Your task to perform on an android device: turn pop-ups off in chrome Image 0: 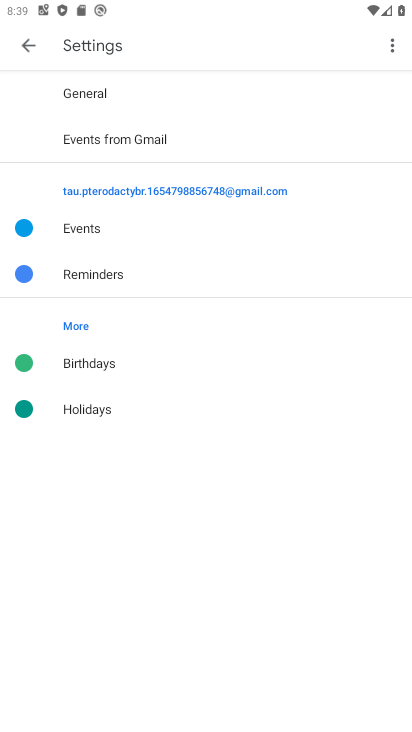
Step 0: press home button
Your task to perform on an android device: turn pop-ups off in chrome Image 1: 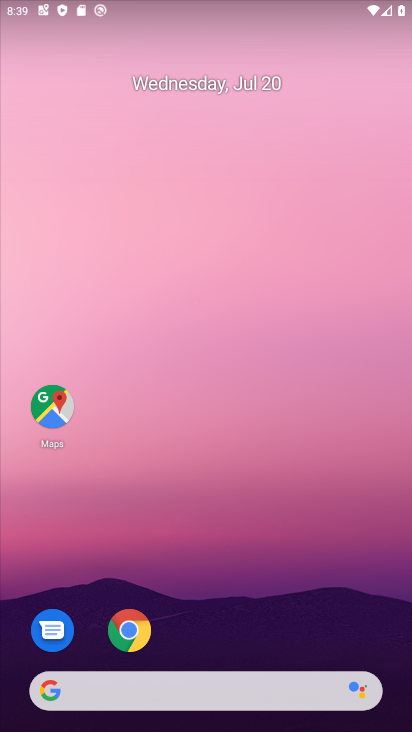
Step 1: drag from (387, 675) to (334, 137)
Your task to perform on an android device: turn pop-ups off in chrome Image 2: 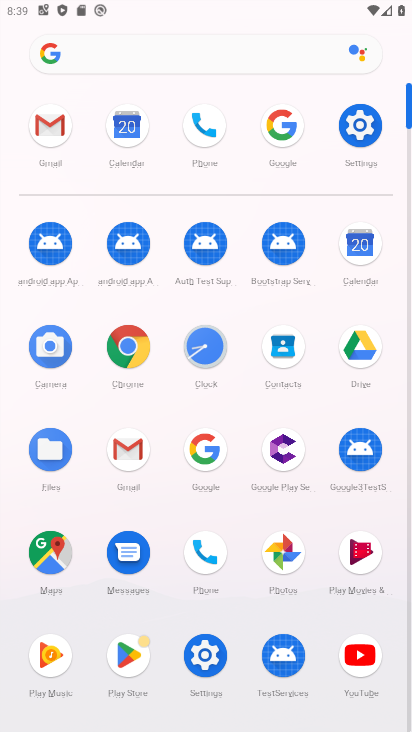
Step 2: click (129, 352)
Your task to perform on an android device: turn pop-ups off in chrome Image 3: 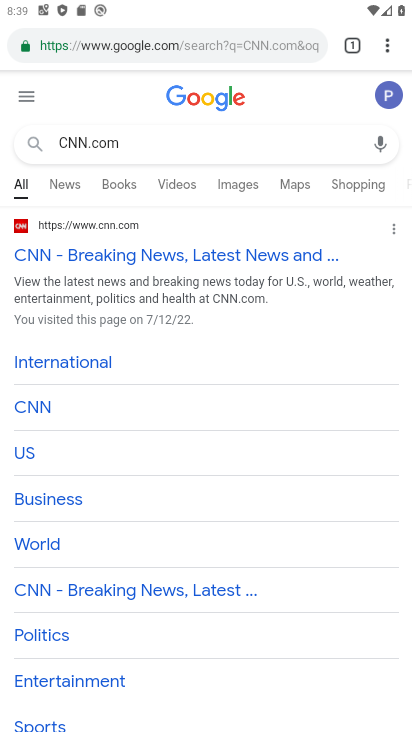
Step 3: click (381, 42)
Your task to perform on an android device: turn pop-ups off in chrome Image 4: 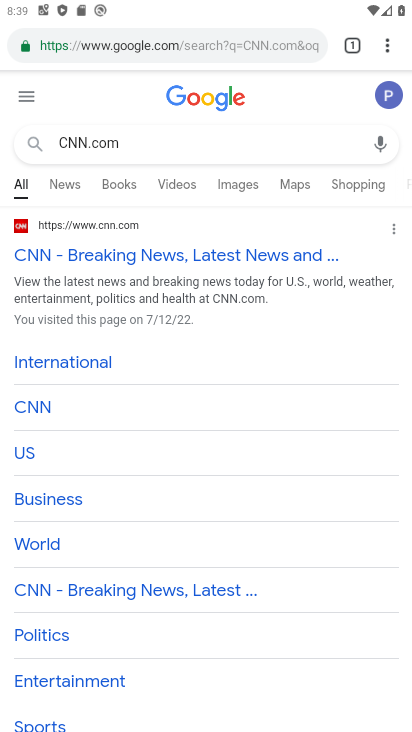
Step 4: click (389, 48)
Your task to perform on an android device: turn pop-ups off in chrome Image 5: 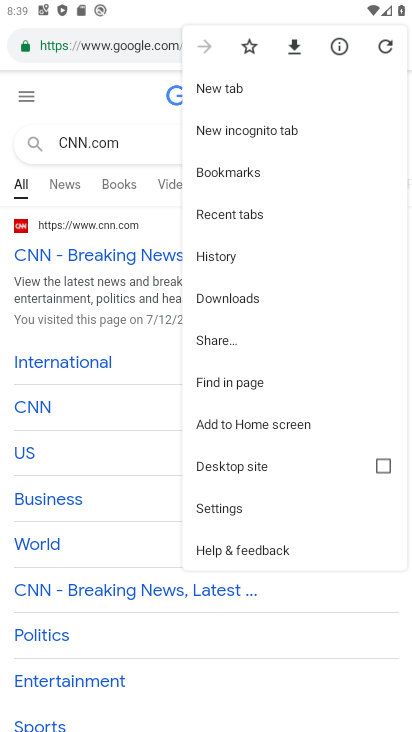
Step 5: click (227, 505)
Your task to perform on an android device: turn pop-ups off in chrome Image 6: 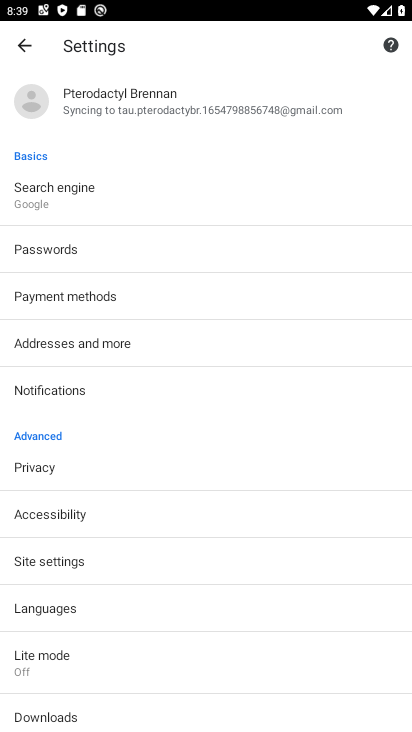
Step 6: click (42, 556)
Your task to perform on an android device: turn pop-ups off in chrome Image 7: 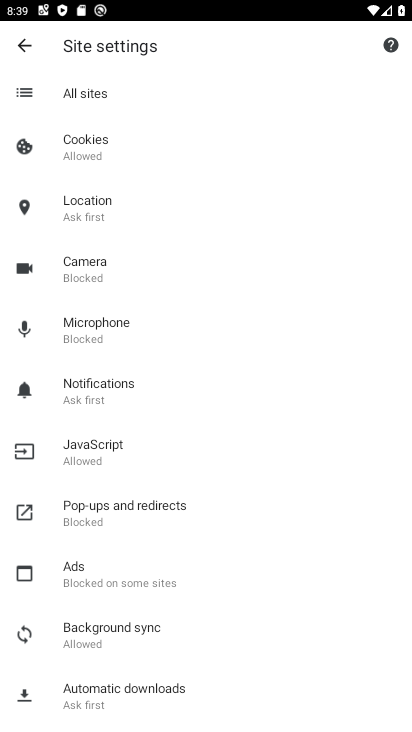
Step 7: click (109, 508)
Your task to perform on an android device: turn pop-ups off in chrome Image 8: 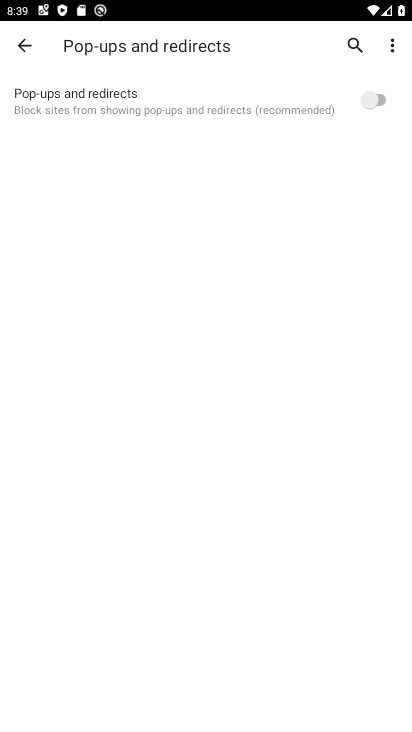
Step 8: task complete